Your task to perform on an android device: open app "Reddit" Image 0: 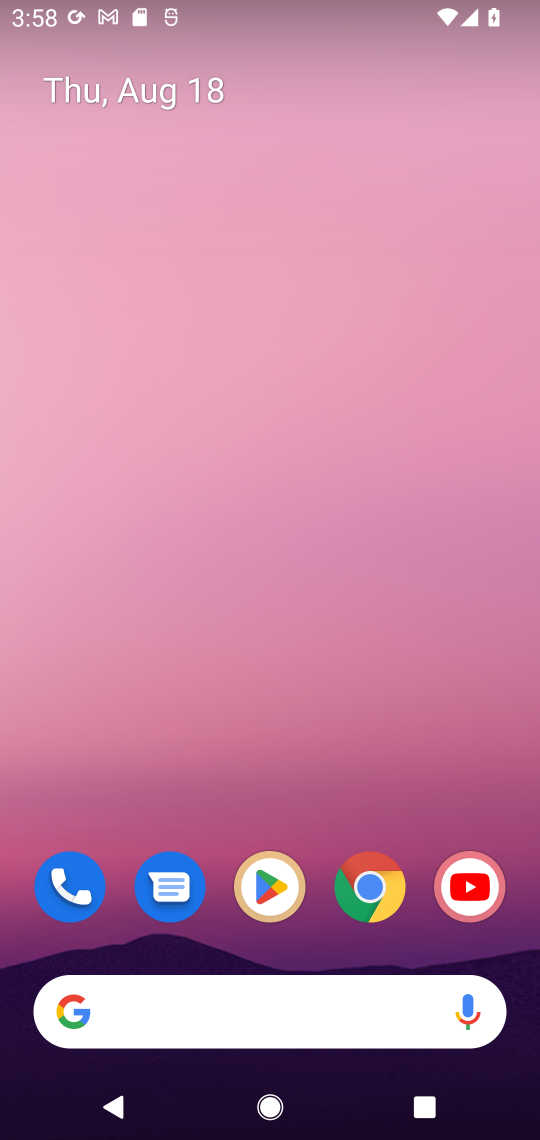
Step 0: click (268, 872)
Your task to perform on an android device: open app "Reddit" Image 1: 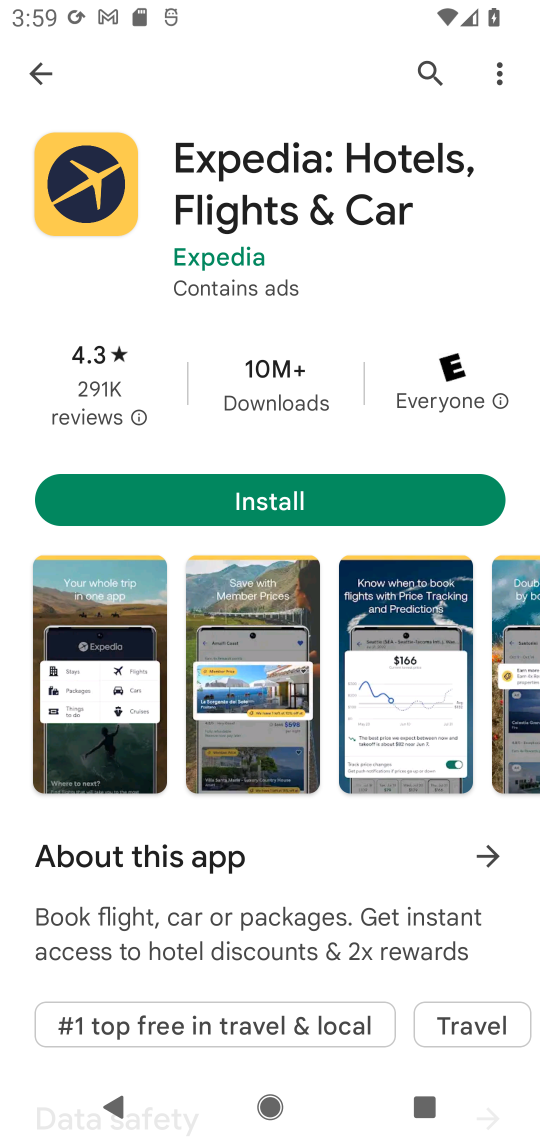
Step 1: click (428, 64)
Your task to perform on an android device: open app "Reddit" Image 2: 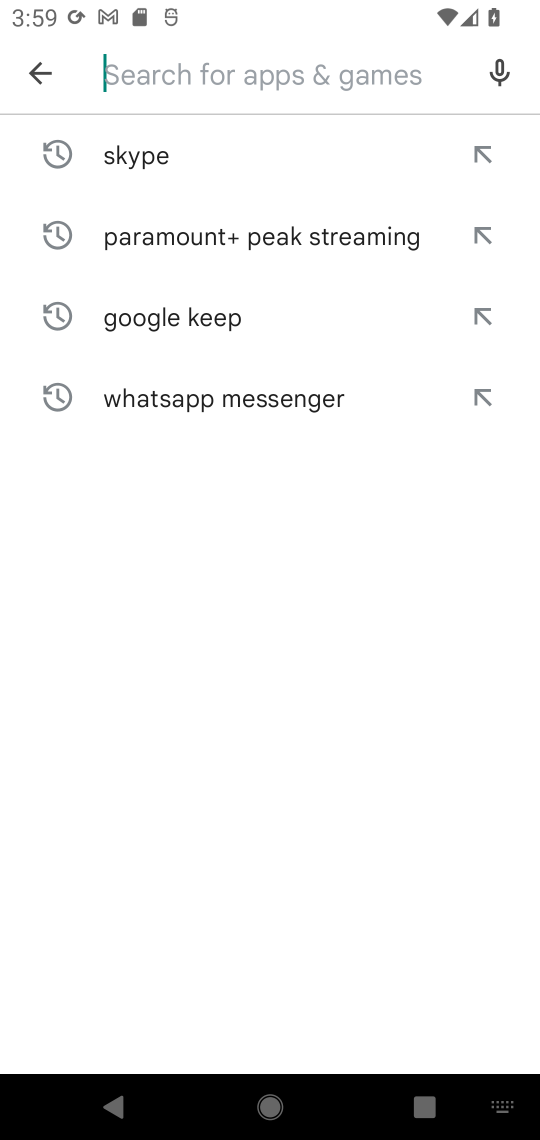
Step 2: type "Reddit"
Your task to perform on an android device: open app "Reddit" Image 3: 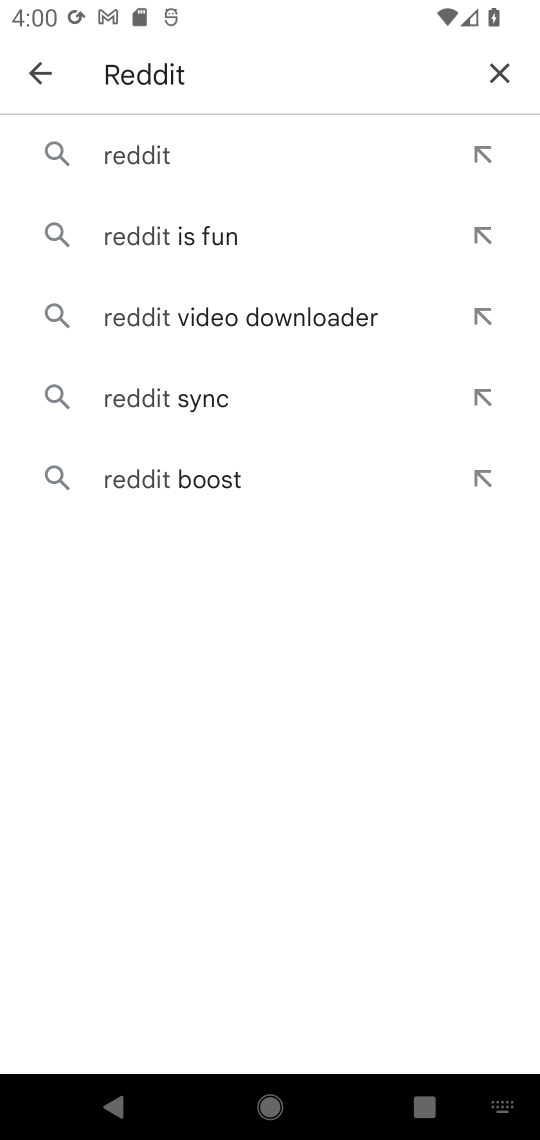
Step 3: click (122, 158)
Your task to perform on an android device: open app "Reddit" Image 4: 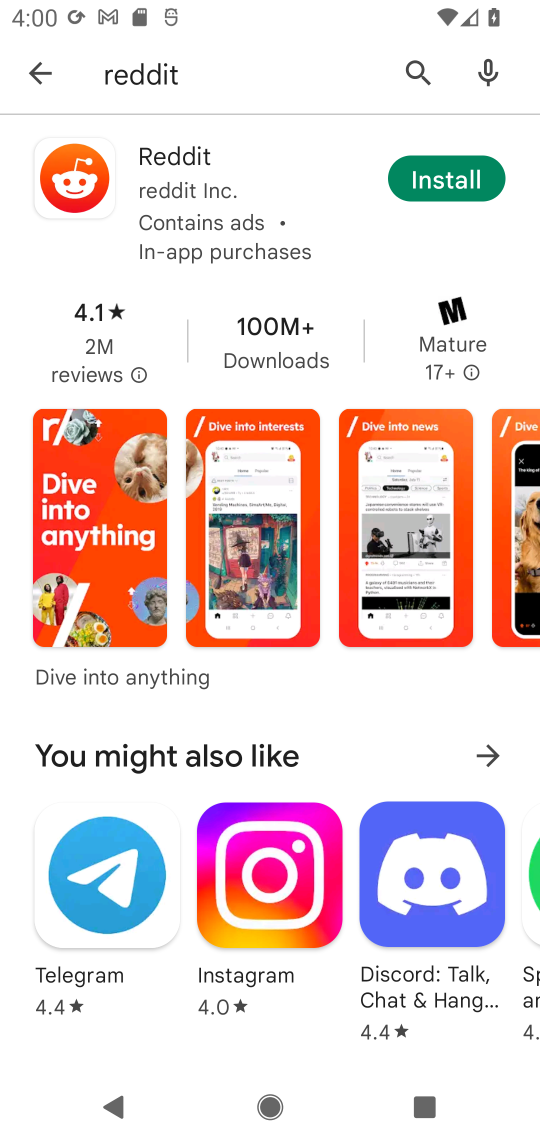
Step 4: task complete